Your task to perform on an android device: open a new tab in the chrome app Image 0: 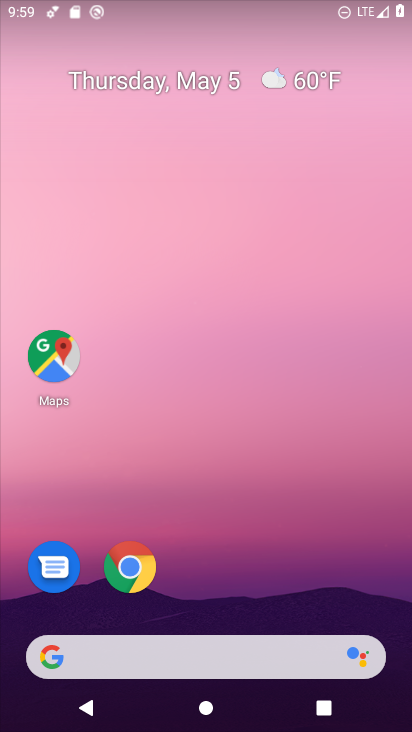
Step 0: click (131, 570)
Your task to perform on an android device: open a new tab in the chrome app Image 1: 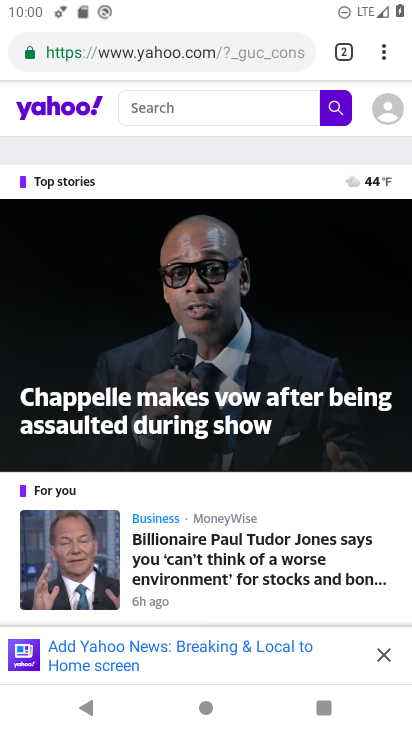
Step 1: task complete